Your task to perform on an android device: check android version Image 0: 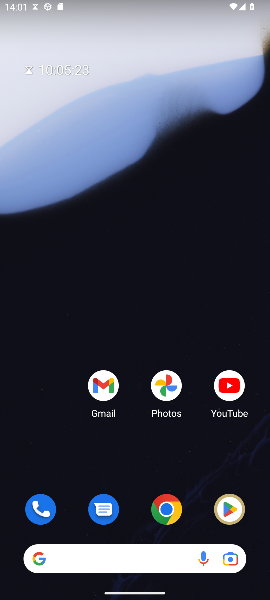
Step 0: drag from (133, 526) to (154, 195)
Your task to perform on an android device: check android version Image 1: 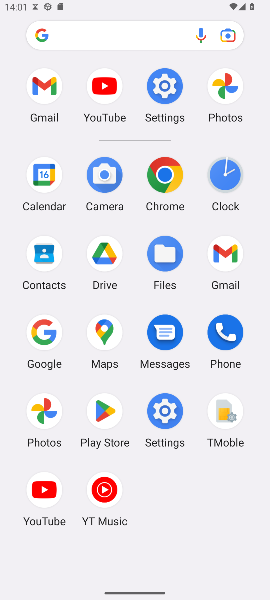
Step 1: click (161, 93)
Your task to perform on an android device: check android version Image 2: 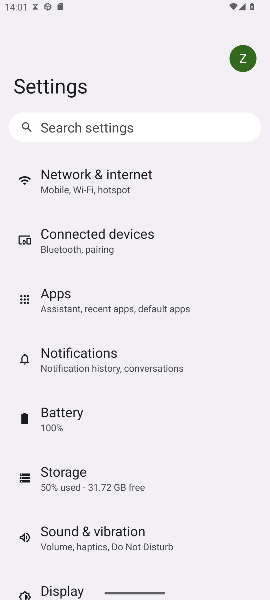
Step 2: drag from (197, 567) to (215, 91)
Your task to perform on an android device: check android version Image 3: 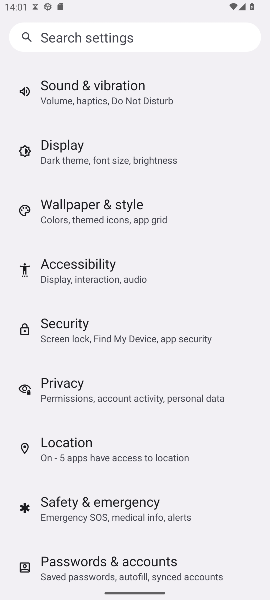
Step 3: drag from (220, 526) to (231, 59)
Your task to perform on an android device: check android version Image 4: 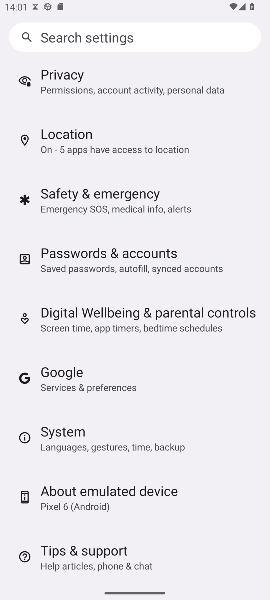
Step 4: click (88, 493)
Your task to perform on an android device: check android version Image 5: 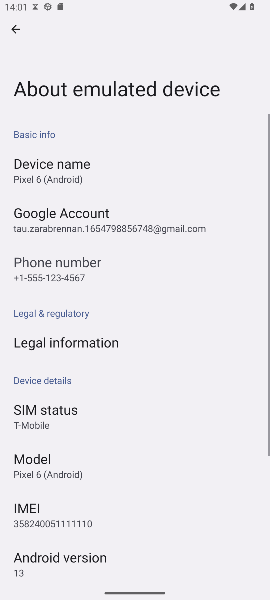
Step 5: task complete